Your task to perform on an android device: uninstall "YouTube Kids" Image 0: 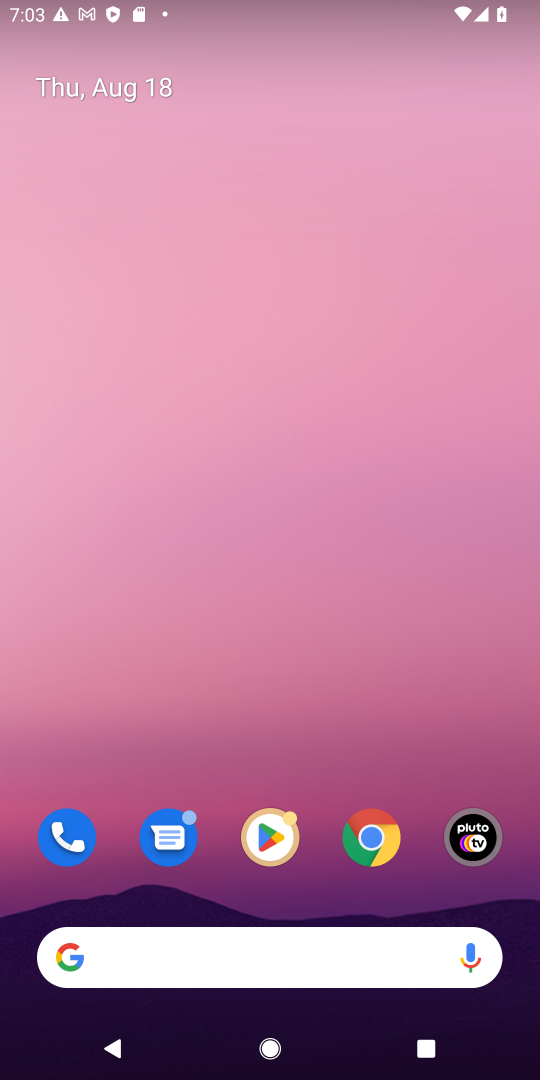
Step 0: drag from (199, 911) to (283, 176)
Your task to perform on an android device: uninstall "YouTube Kids" Image 1: 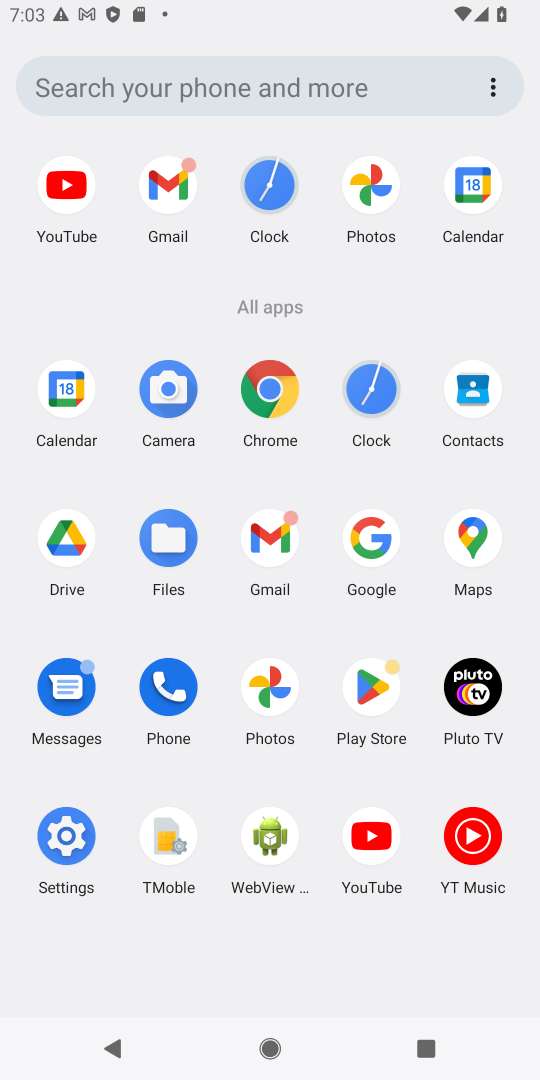
Step 1: click (371, 718)
Your task to perform on an android device: uninstall "YouTube Kids" Image 2: 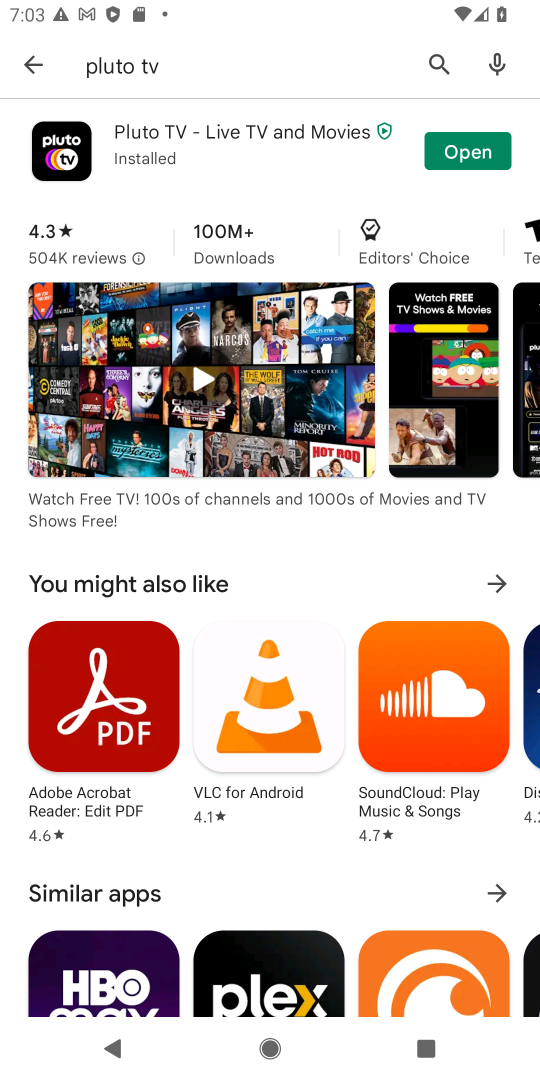
Step 2: click (196, 69)
Your task to perform on an android device: uninstall "YouTube Kids" Image 3: 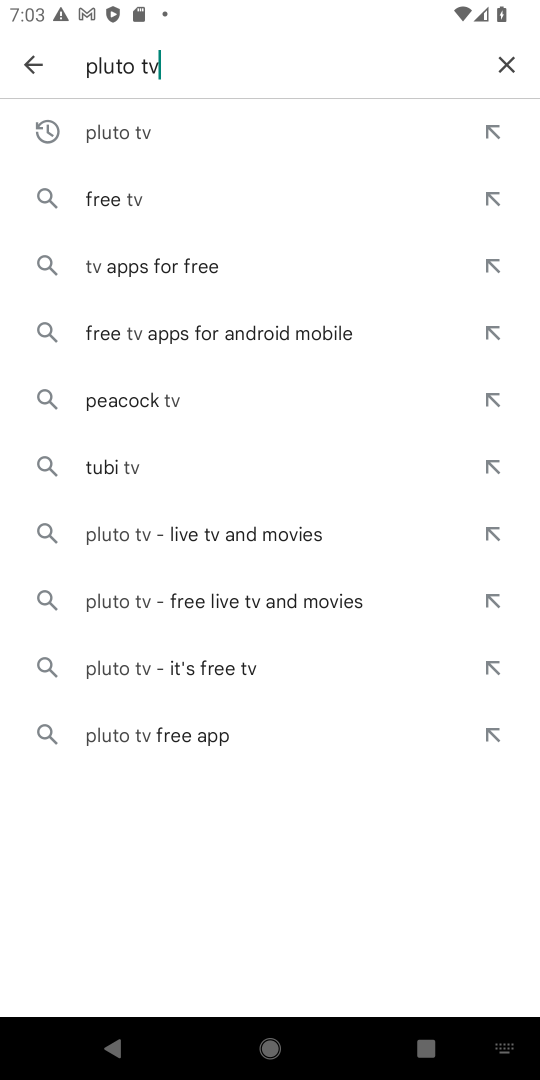
Step 3: click (511, 61)
Your task to perform on an android device: uninstall "YouTube Kids" Image 4: 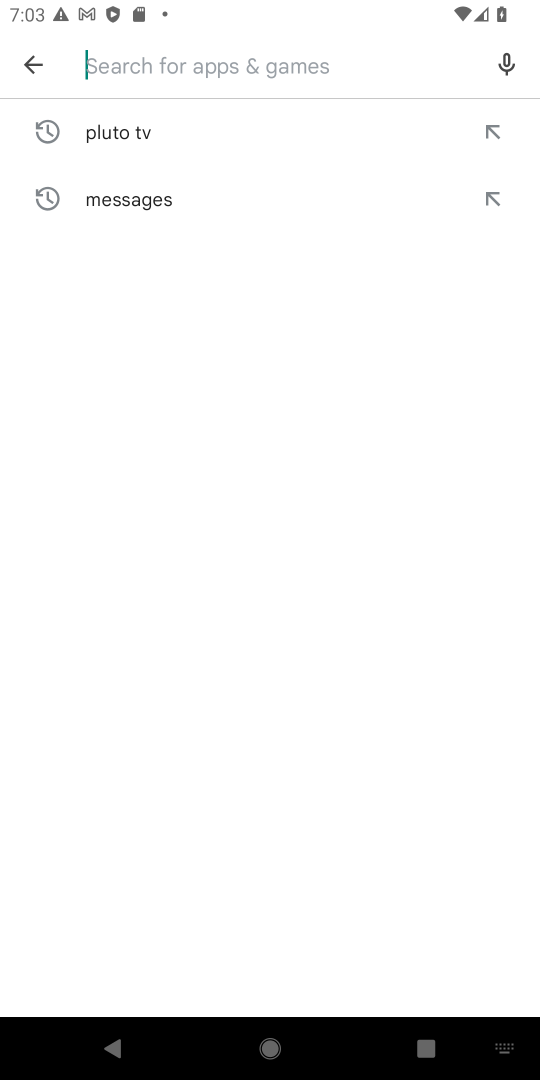
Step 4: type "YouTube Kids"
Your task to perform on an android device: uninstall "YouTube Kids" Image 5: 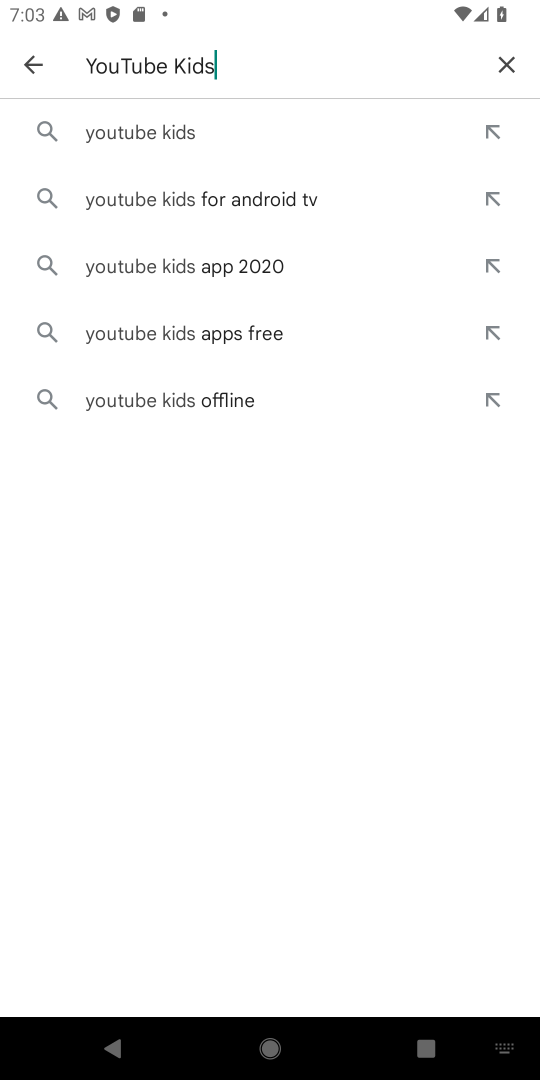
Step 5: click (184, 134)
Your task to perform on an android device: uninstall "YouTube Kids" Image 6: 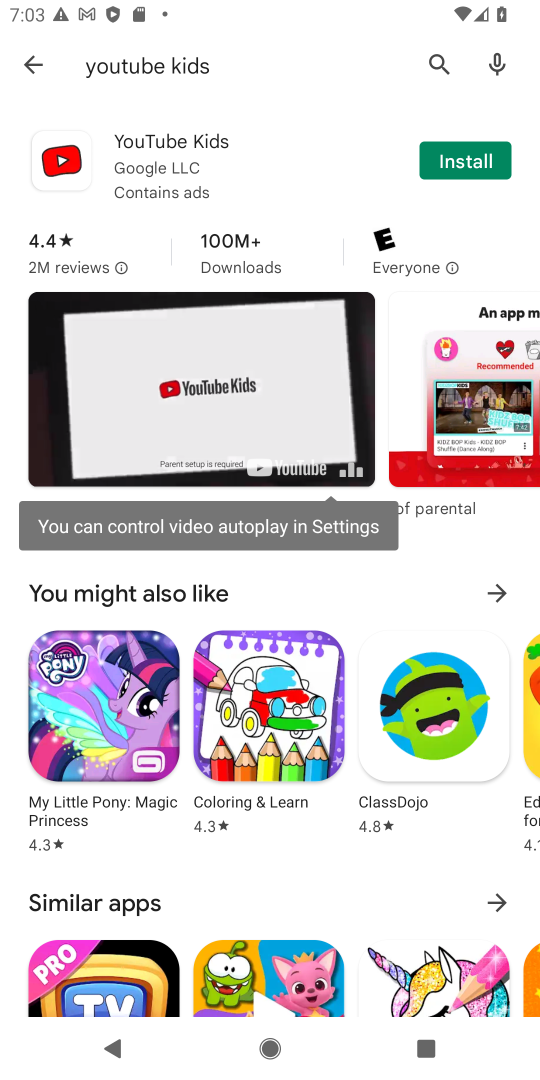
Step 6: task complete